Your task to perform on an android device: move an email to a new category in the gmail app Image 0: 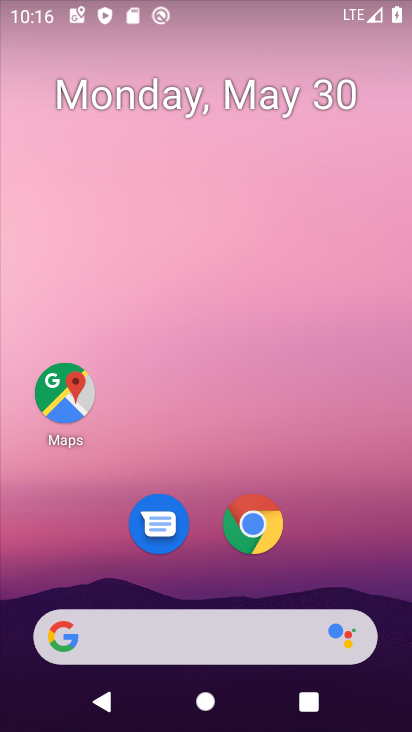
Step 0: drag from (329, 545) to (244, 12)
Your task to perform on an android device: move an email to a new category in the gmail app Image 1: 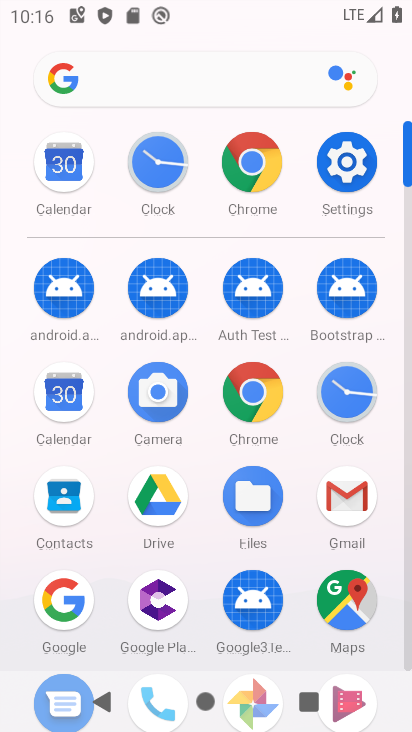
Step 1: click (346, 489)
Your task to perform on an android device: move an email to a new category in the gmail app Image 2: 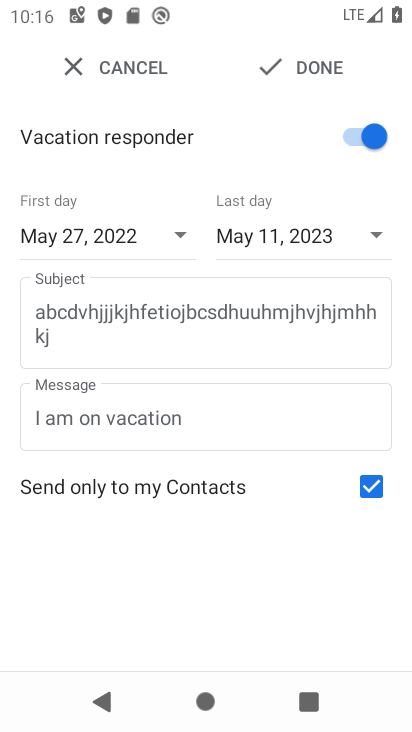
Step 2: press back button
Your task to perform on an android device: move an email to a new category in the gmail app Image 3: 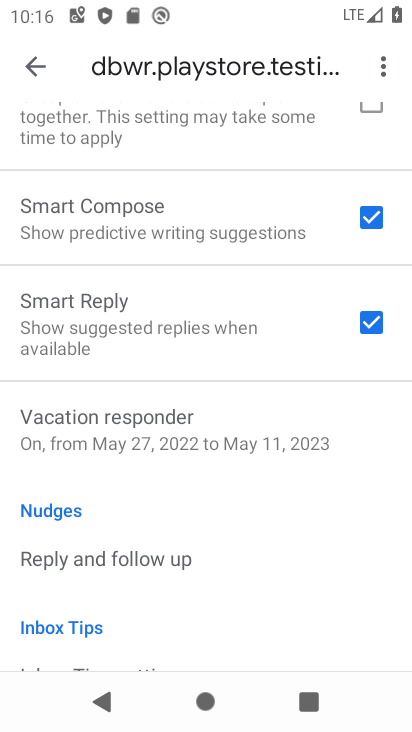
Step 3: press back button
Your task to perform on an android device: move an email to a new category in the gmail app Image 4: 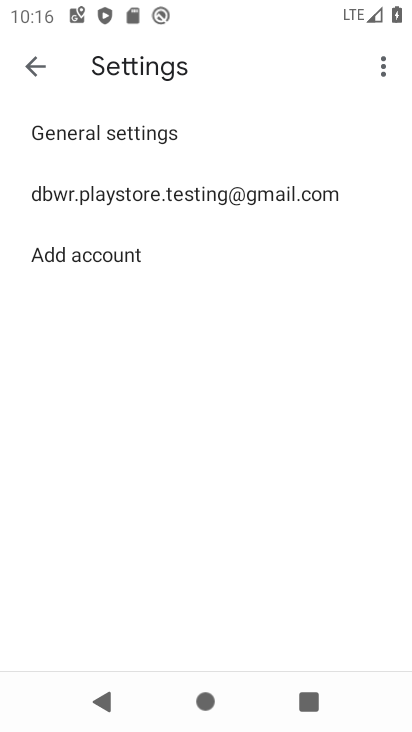
Step 4: click (39, 55)
Your task to perform on an android device: move an email to a new category in the gmail app Image 5: 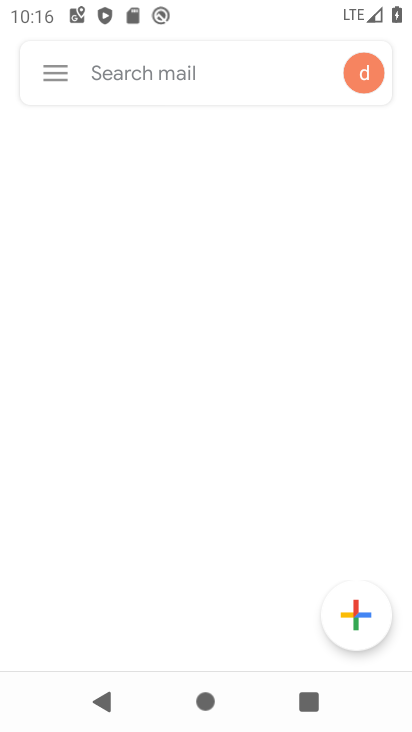
Step 5: click (60, 71)
Your task to perform on an android device: move an email to a new category in the gmail app Image 6: 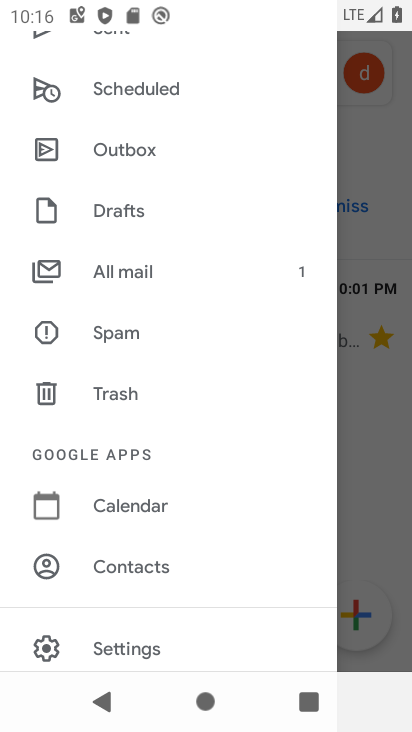
Step 6: click (137, 265)
Your task to perform on an android device: move an email to a new category in the gmail app Image 7: 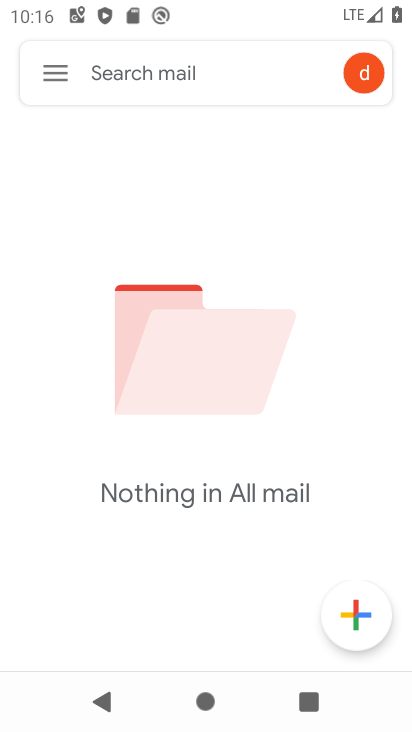
Step 7: task complete